Your task to perform on an android device: Open notification settings Image 0: 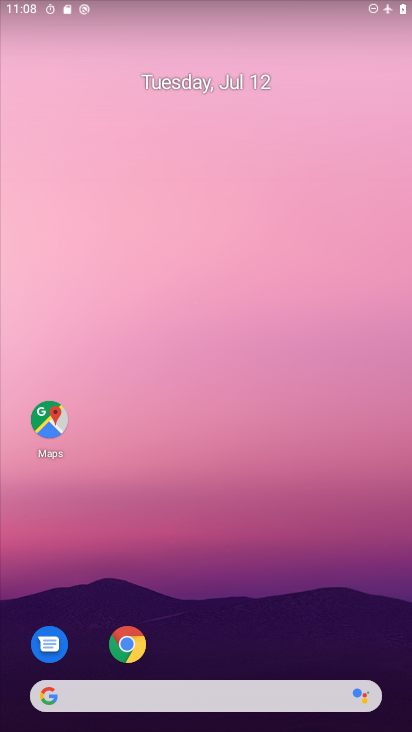
Step 0: drag from (210, 643) to (188, 187)
Your task to perform on an android device: Open notification settings Image 1: 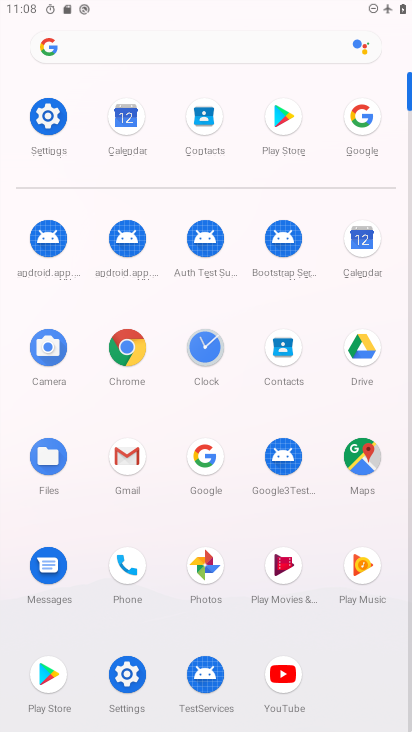
Step 1: click (38, 110)
Your task to perform on an android device: Open notification settings Image 2: 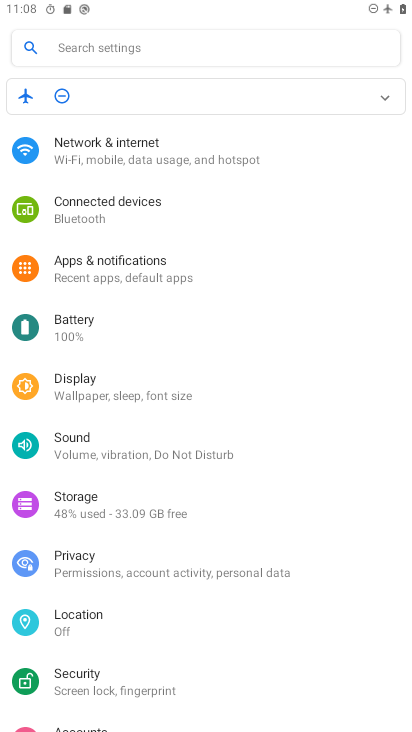
Step 2: click (199, 261)
Your task to perform on an android device: Open notification settings Image 3: 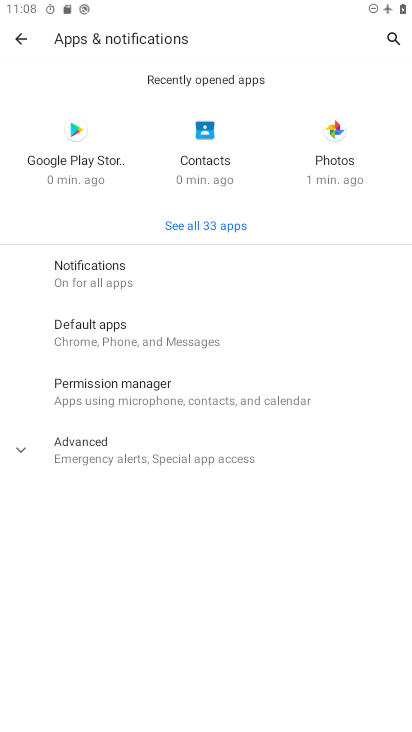
Step 3: click (159, 271)
Your task to perform on an android device: Open notification settings Image 4: 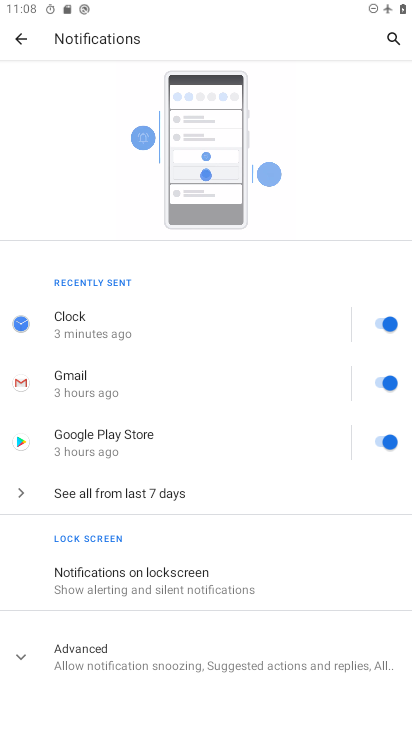
Step 4: task complete